Your task to perform on an android device: What's the weather today? Image 0: 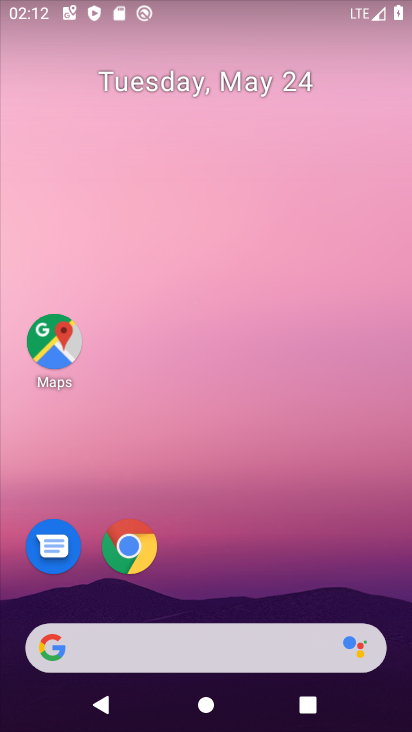
Step 0: drag from (232, 605) to (300, 87)
Your task to perform on an android device: What's the weather today? Image 1: 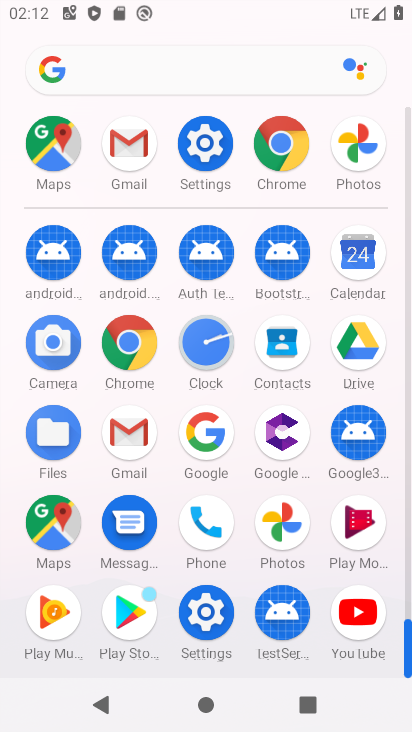
Step 1: click (173, 66)
Your task to perform on an android device: What's the weather today? Image 2: 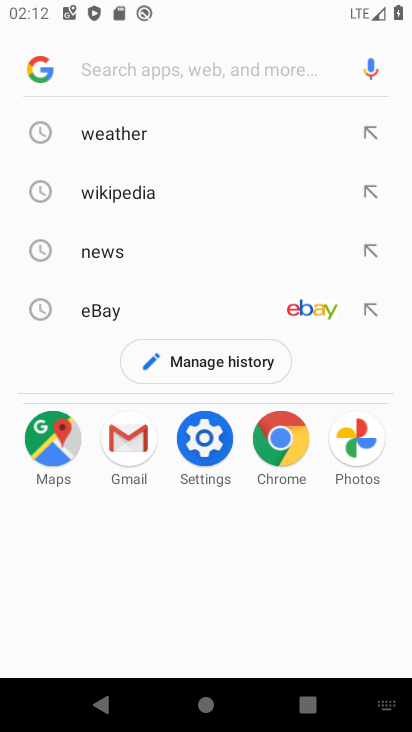
Step 2: click (148, 127)
Your task to perform on an android device: What's the weather today? Image 3: 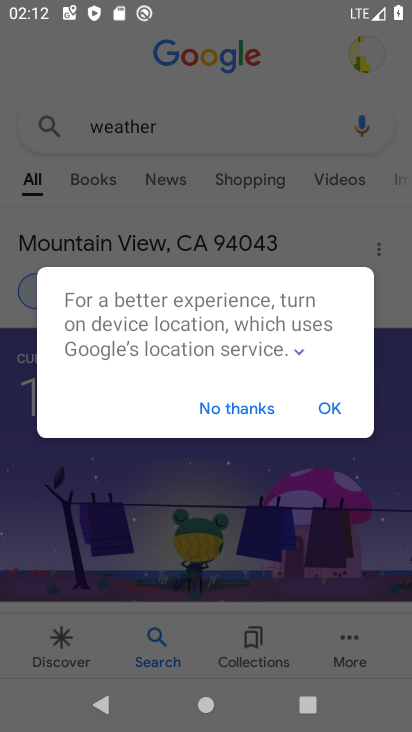
Step 3: drag from (249, 475) to (393, 91)
Your task to perform on an android device: What's the weather today? Image 4: 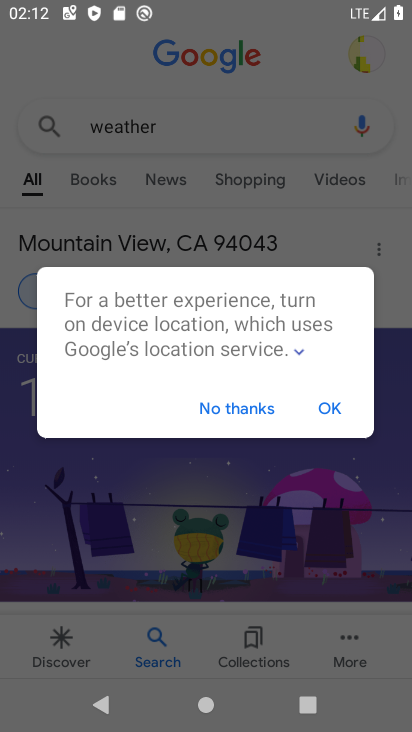
Step 4: click (326, 409)
Your task to perform on an android device: What's the weather today? Image 5: 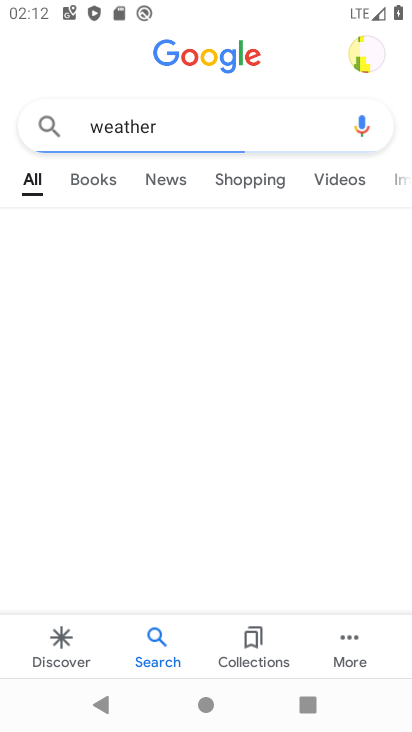
Step 5: task complete